Your task to perform on an android device: open the mobile data screen to see how much data has been used Image 0: 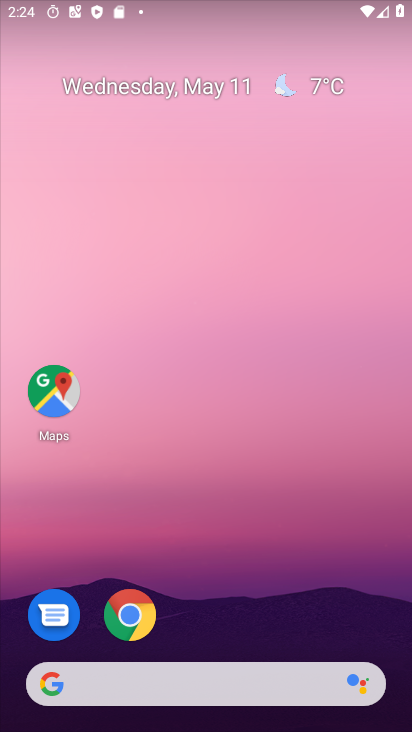
Step 0: click (182, 615)
Your task to perform on an android device: open the mobile data screen to see how much data has been used Image 1: 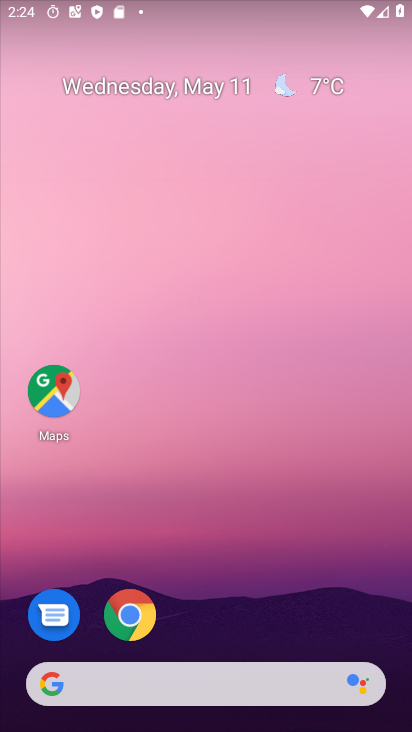
Step 1: drag from (211, 697) to (238, 261)
Your task to perform on an android device: open the mobile data screen to see how much data has been used Image 2: 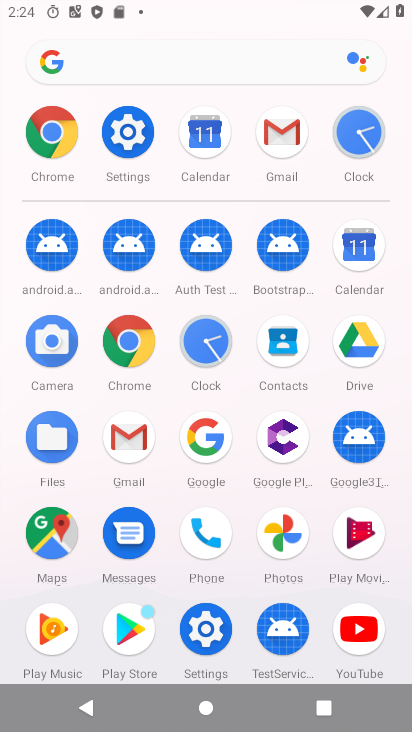
Step 2: click (132, 130)
Your task to perform on an android device: open the mobile data screen to see how much data has been used Image 3: 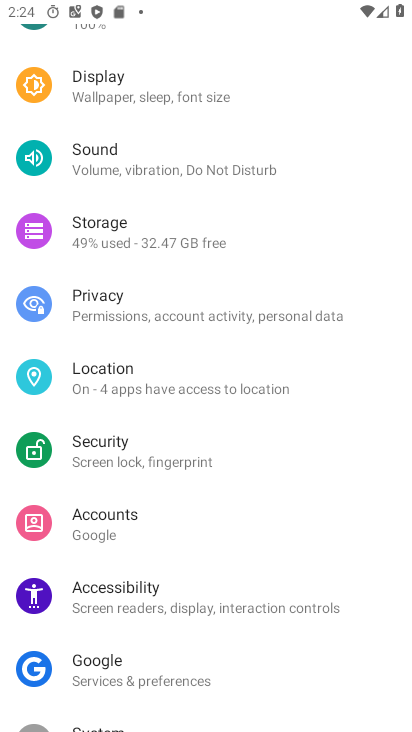
Step 3: drag from (139, 121) to (181, 409)
Your task to perform on an android device: open the mobile data screen to see how much data has been used Image 4: 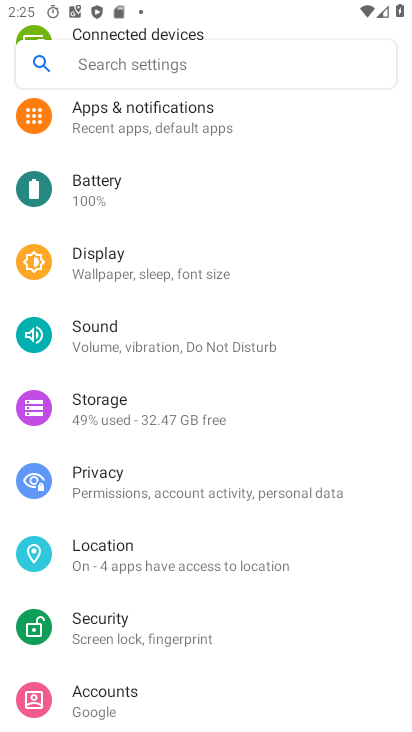
Step 4: drag from (179, 162) to (233, 572)
Your task to perform on an android device: open the mobile data screen to see how much data has been used Image 5: 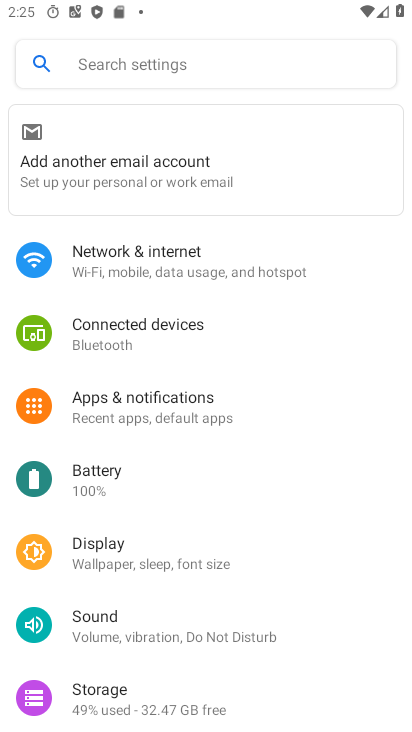
Step 5: click (173, 252)
Your task to perform on an android device: open the mobile data screen to see how much data has been used Image 6: 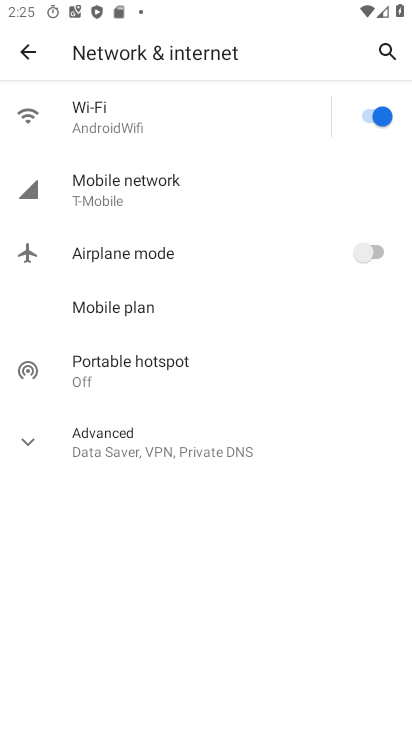
Step 6: click (129, 187)
Your task to perform on an android device: open the mobile data screen to see how much data has been used Image 7: 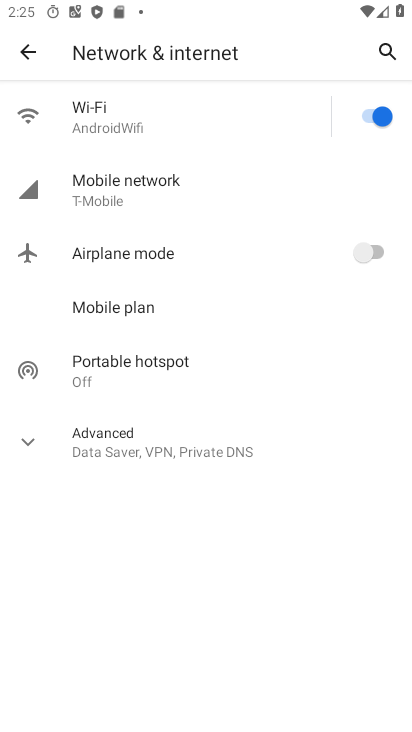
Step 7: click (129, 187)
Your task to perform on an android device: open the mobile data screen to see how much data has been used Image 8: 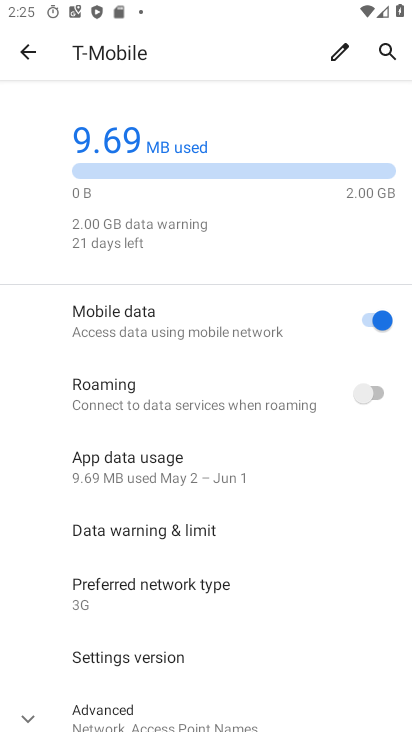
Step 8: task complete